Your task to perform on an android device: turn pop-ups off in chrome Image 0: 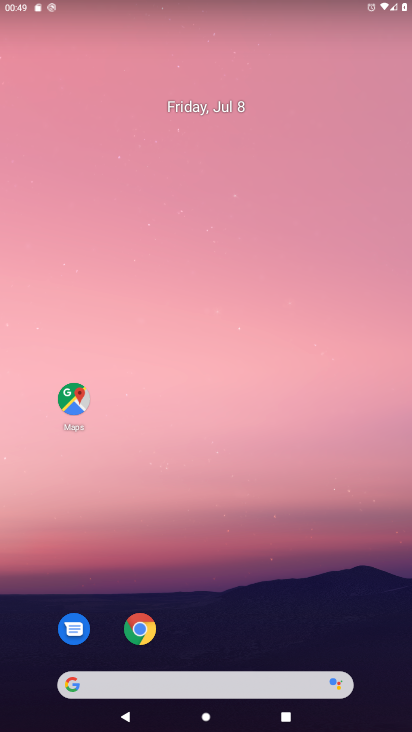
Step 0: click (140, 625)
Your task to perform on an android device: turn pop-ups off in chrome Image 1: 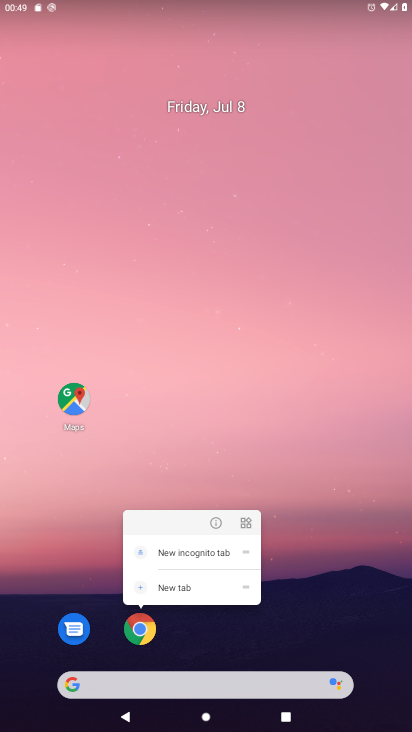
Step 1: click (215, 519)
Your task to perform on an android device: turn pop-ups off in chrome Image 2: 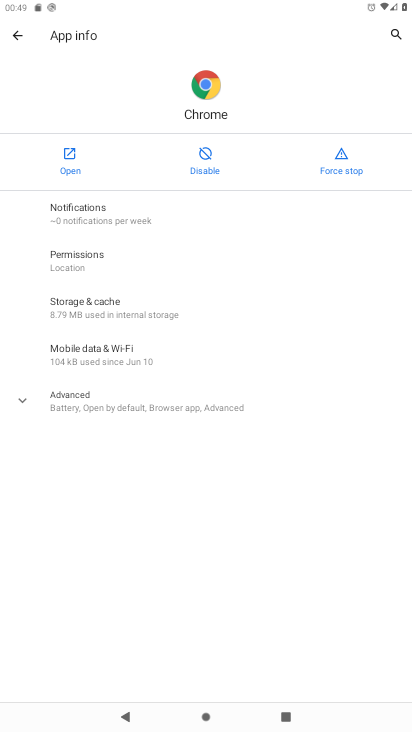
Step 2: click (185, 413)
Your task to perform on an android device: turn pop-ups off in chrome Image 3: 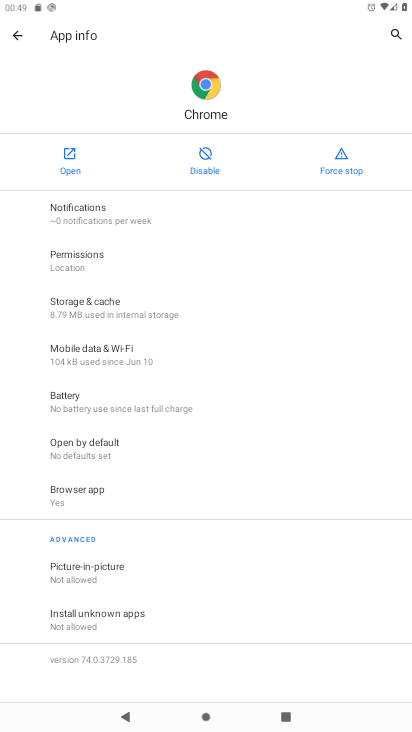
Step 3: click (96, 563)
Your task to perform on an android device: turn pop-ups off in chrome Image 4: 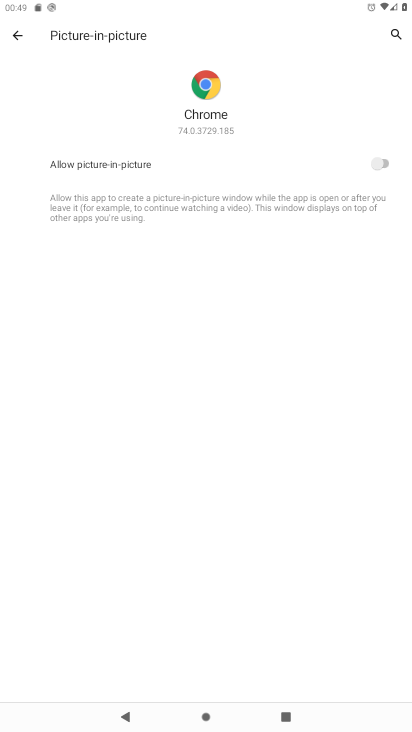
Step 4: task complete